Your task to perform on an android device: delete browsing data in the chrome app Image 0: 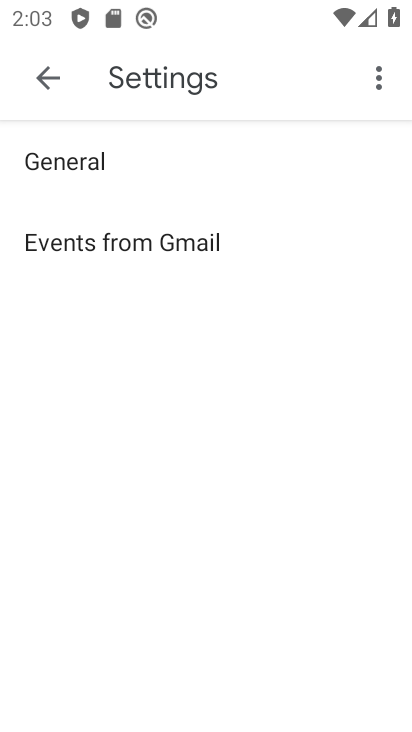
Step 0: press back button
Your task to perform on an android device: delete browsing data in the chrome app Image 1: 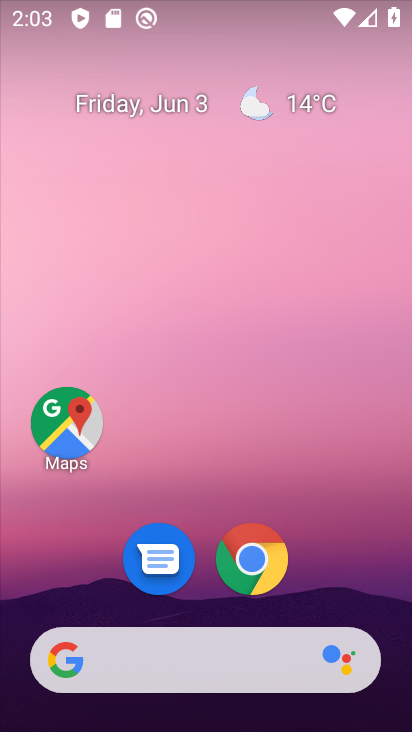
Step 1: click (252, 542)
Your task to perform on an android device: delete browsing data in the chrome app Image 2: 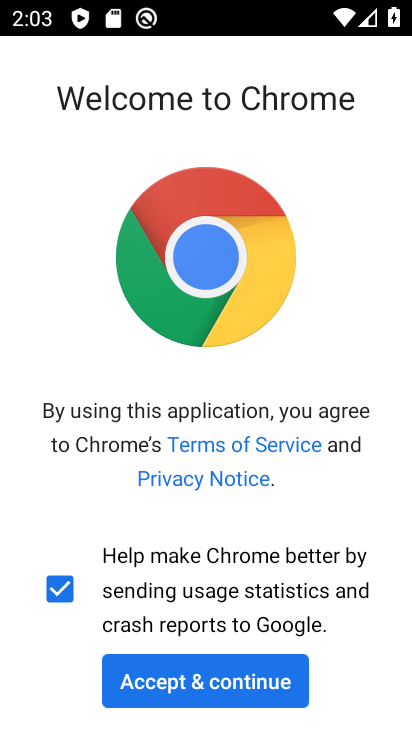
Step 2: click (290, 685)
Your task to perform on an android device: delete browsing data in the chrome app Image 3: 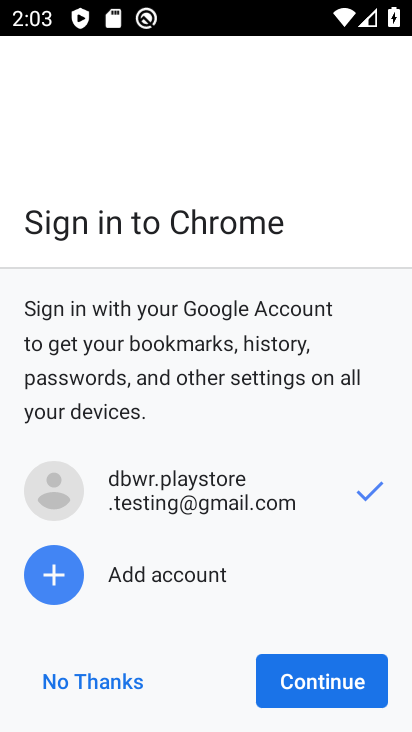
Step 3: click (341, 700)
Your task to perform on an android device: delete browsing data in the chrome app Image 4: 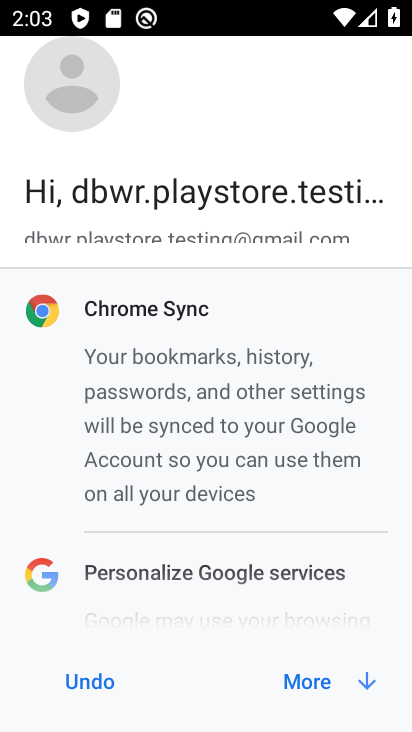
Step 4: click (339, 676)
Your task to perform on an android device: delete browsing data in the chrome app Image 5: 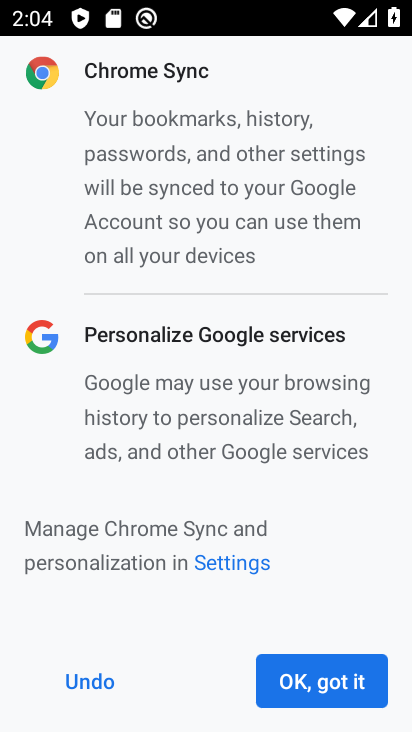
Step 5: click (335, 678)
Your task to perform on an android device: delete browsing data in the chrome app Image 6: 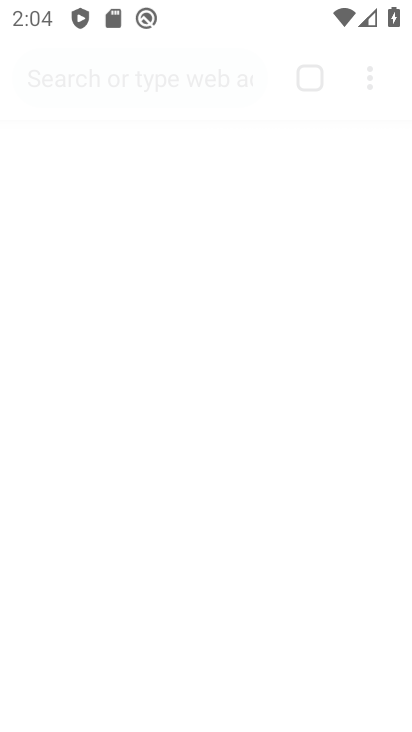
Step 6: click (337, 674)
Your task to perform on an android device: delete browsing data in the chrome app Image 7: 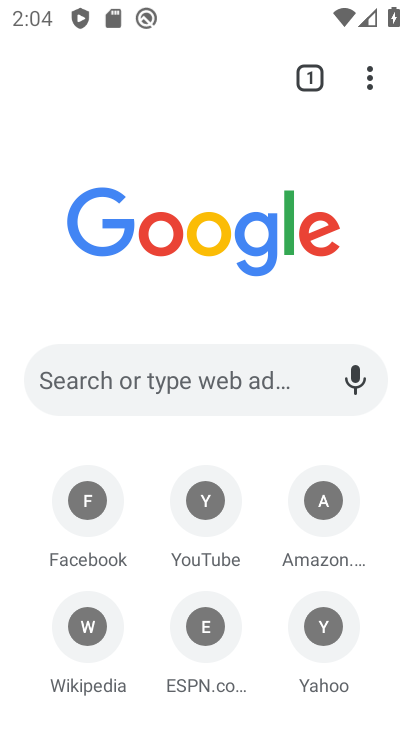
Step 7: task complete